Your task to perform on an android device: Open notification settings Image 0: 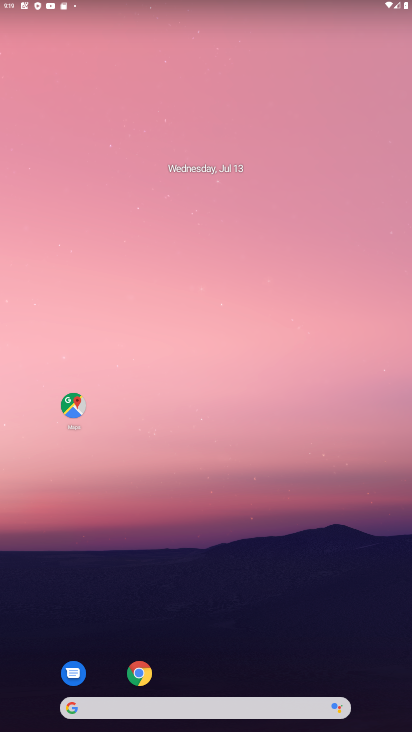
Step 0: drag from (189, 693) to (262, 6)
Your task to perform on an android device: Open notification settings Image 1: 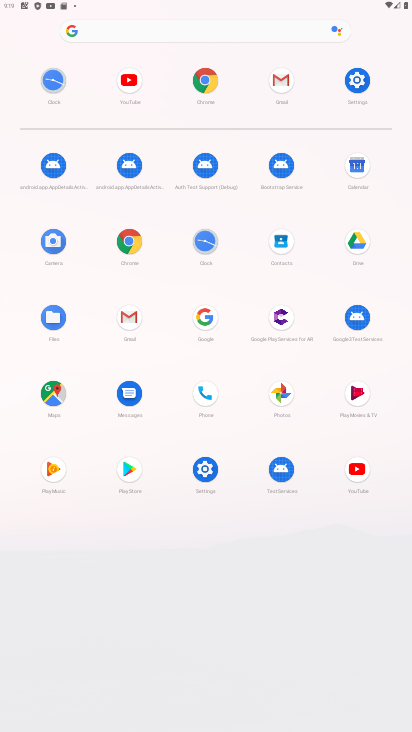
Step 1: click (366, 78)
Your task to perform on an android device: Open notification settings Image 2: 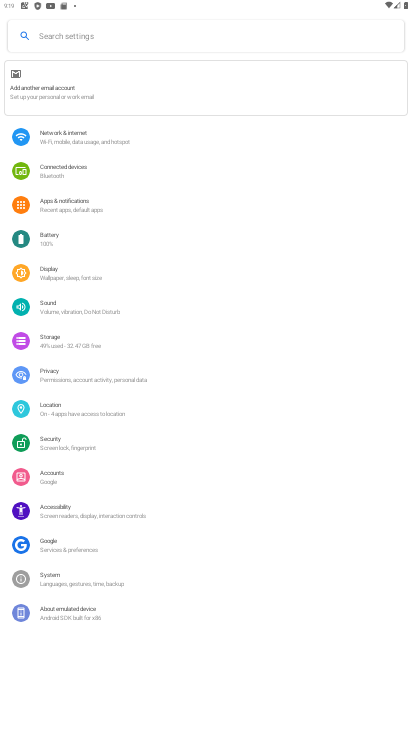
Step 2: click (101, 216)
Your task to perform on an android device: Open notification settings Image 3: 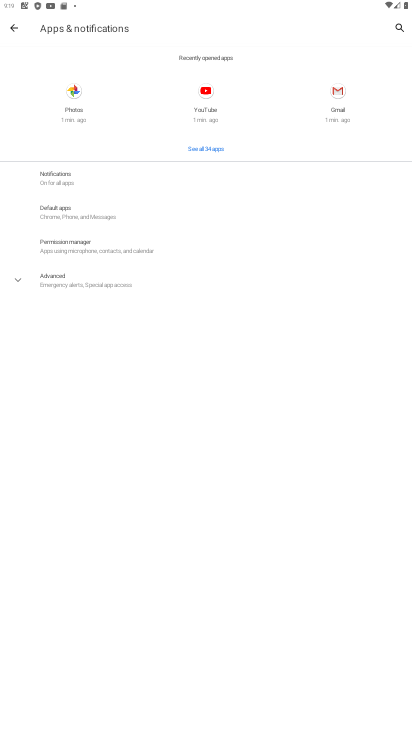
Step 3: task complete